Your task to perform on an android device: toggle priority inbox in the gmail app Image 0: 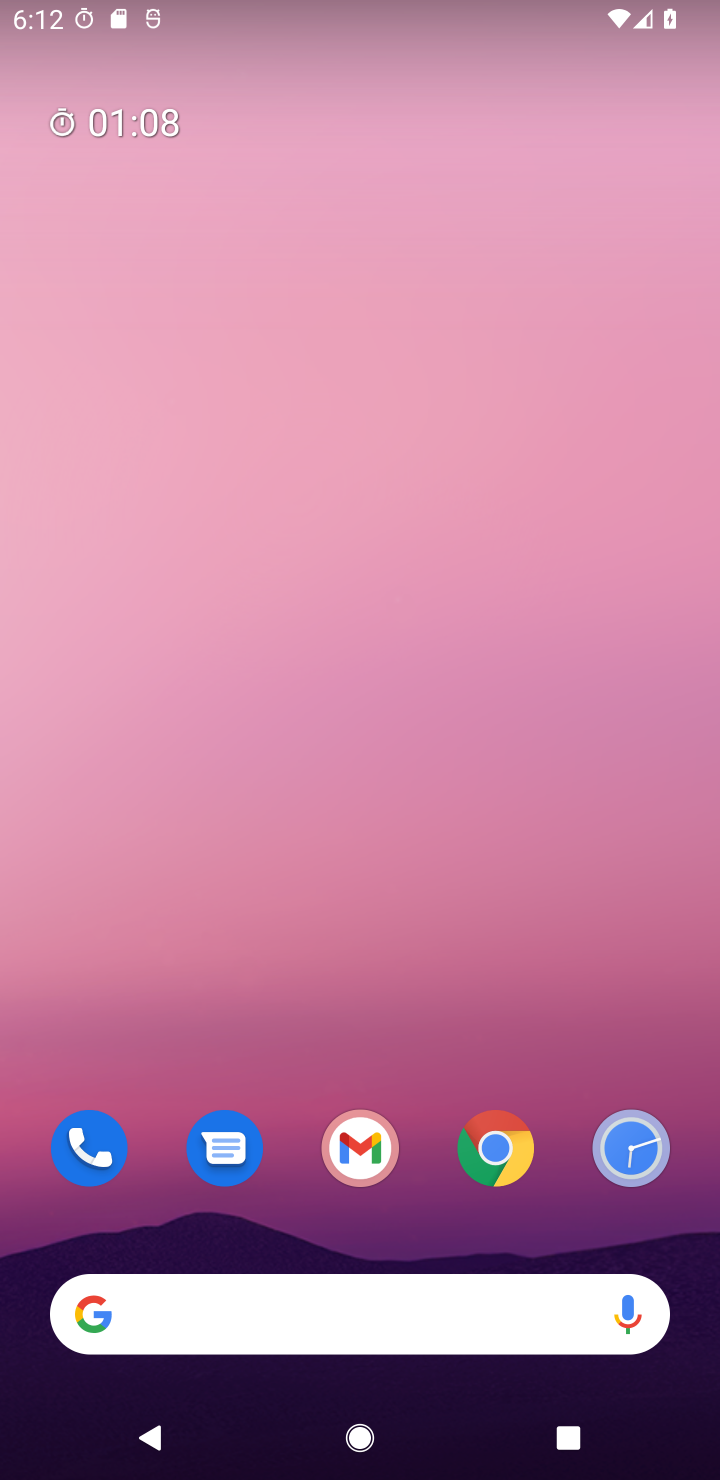
Step 0: drag from (311, 1248) to (321, 0)
Your task to perform on an android device: toggle priority inbox in the gmail app Image 1: 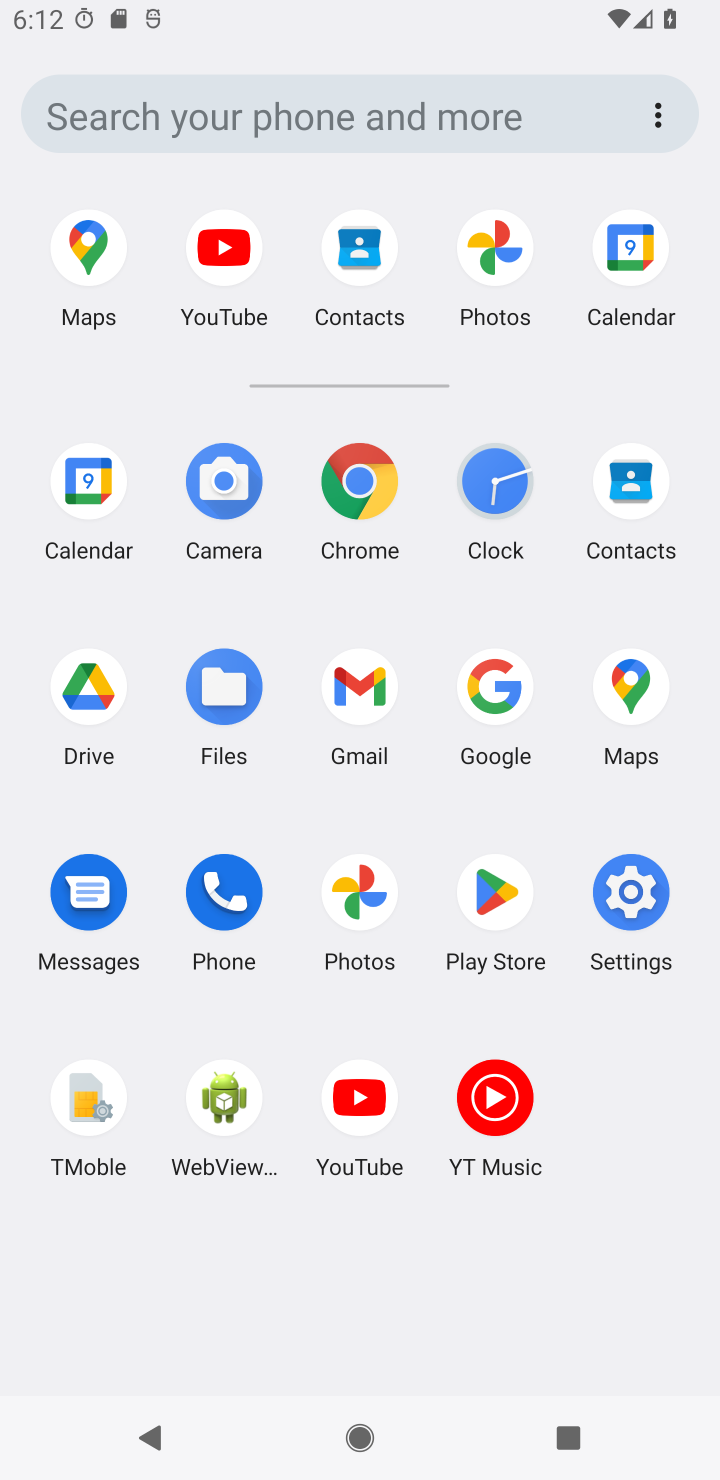
Step 1: click (351, 706)
Your task to perform on an android device: toggle priority inbox in the gmail app Image 2: 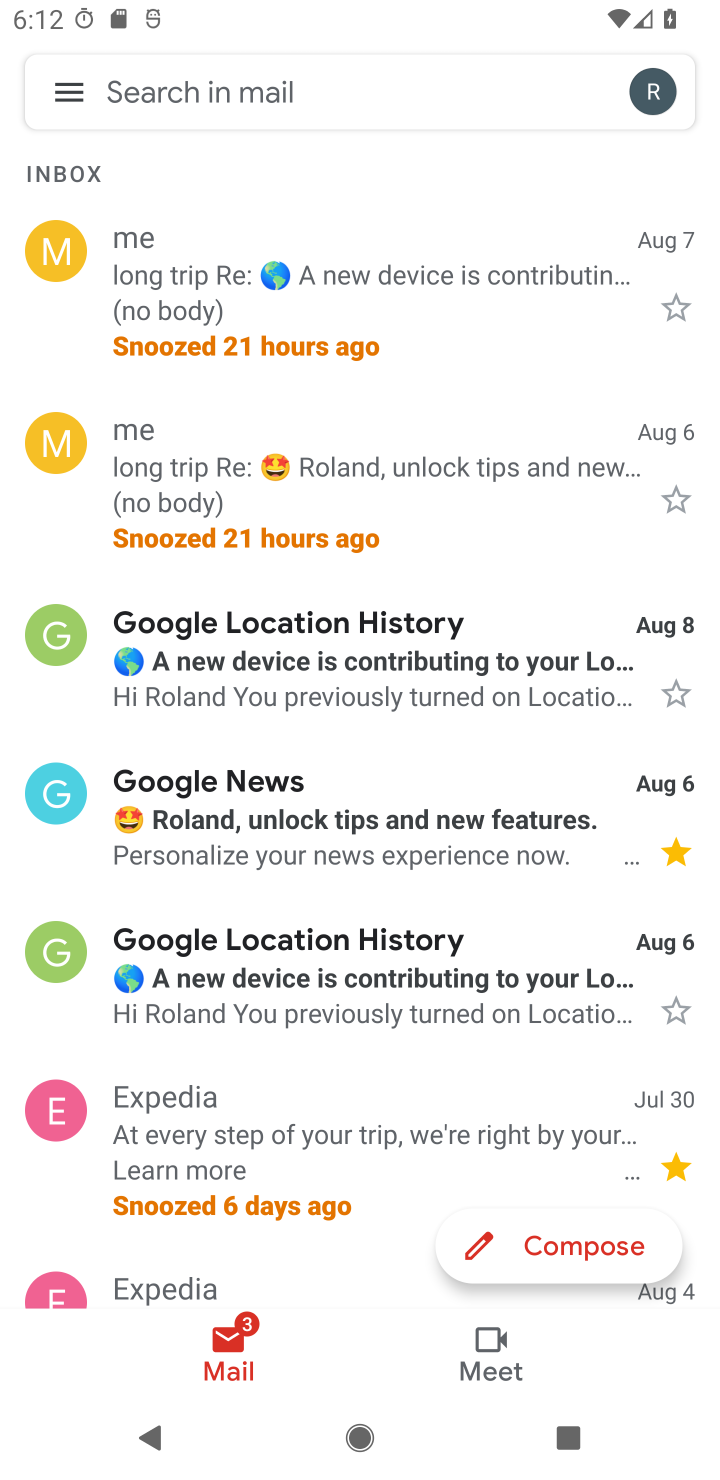
Step 2: click (73, 97)
Your task to perform on an android device: toggle priority inbox in the gmail app Image 3: 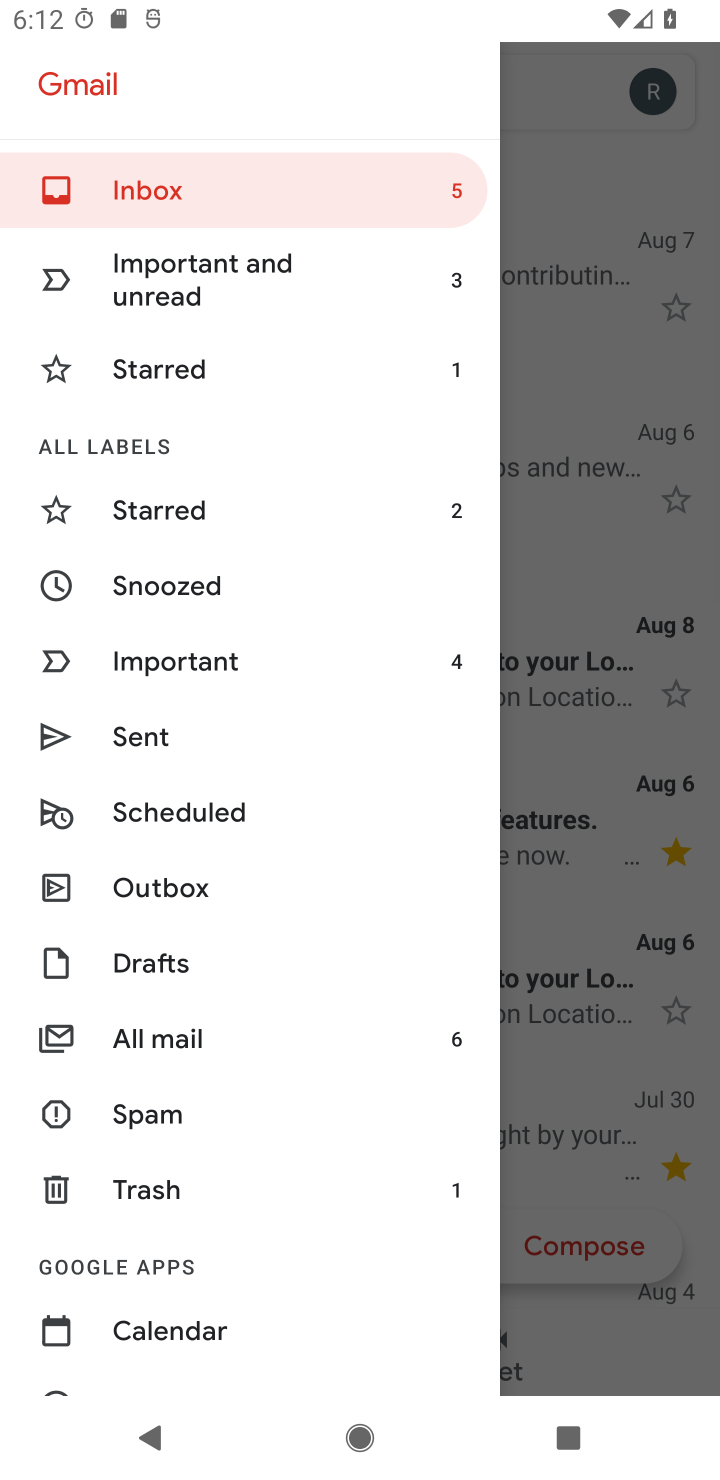
Step 3: drag from (162, 1087) to (377, 154)
Your task to perform on an android device: toggle priority inbox in the gmail app Image 4: 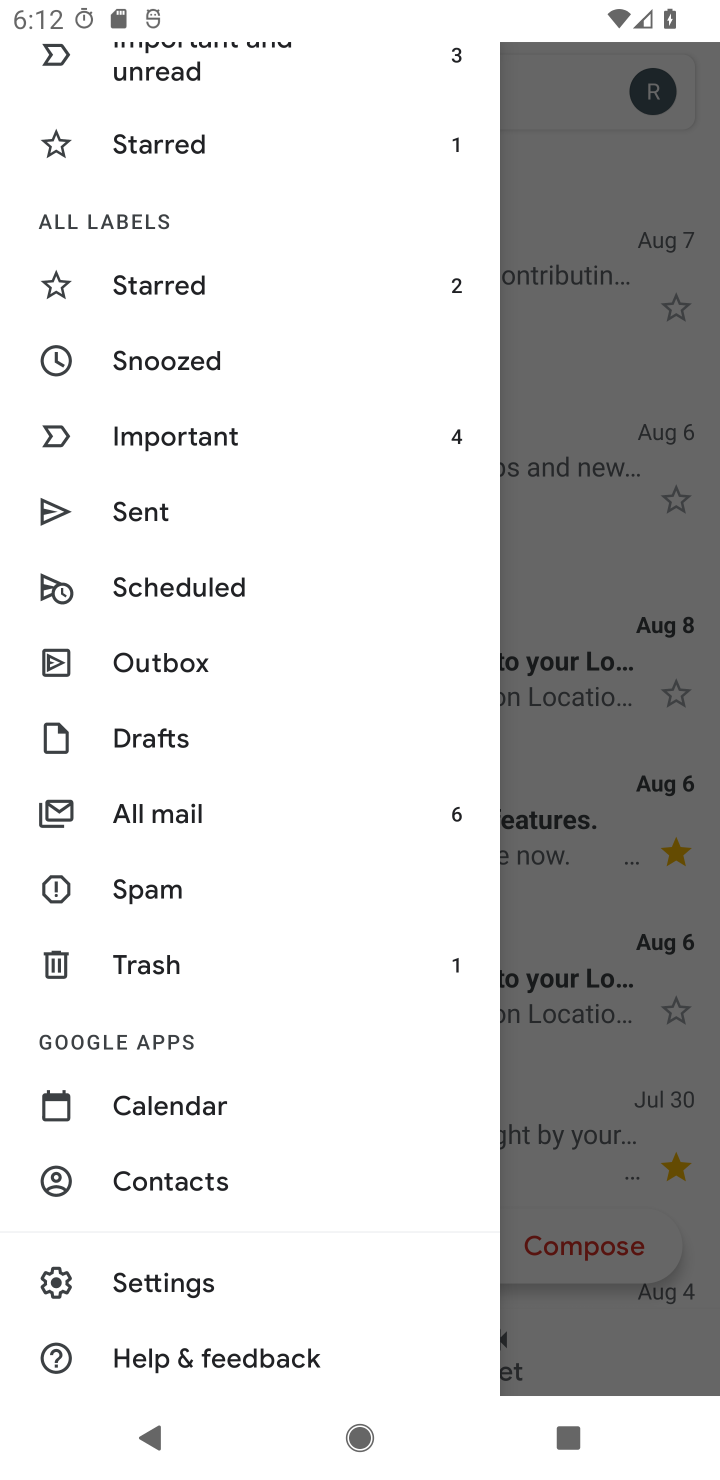
Step 4: click (185, 1282)
Your task to perform on an android device: toggle priority inbox in the gmail app Image 5: 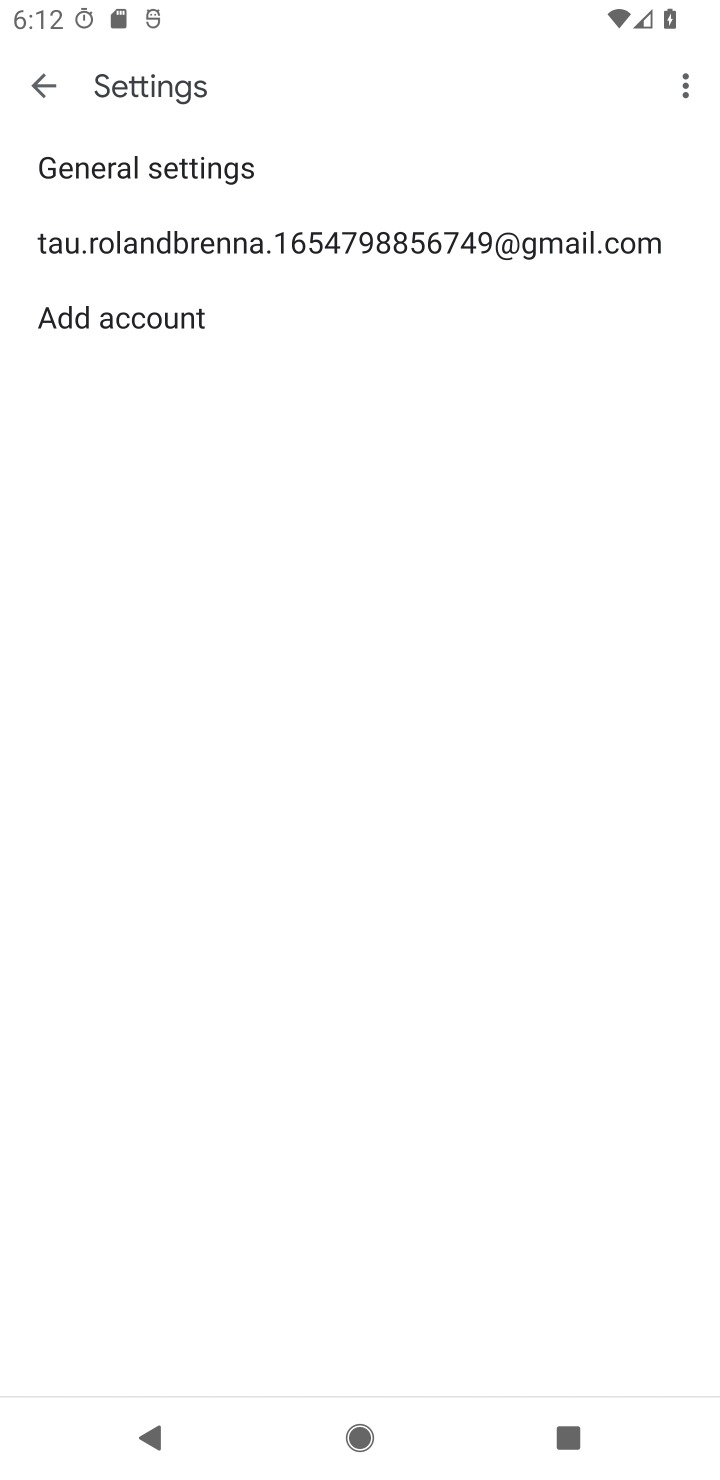
Step 5: click (291, 253)
Your task to perform on an android device: toggle priority inbox in the gmail app Image 6: 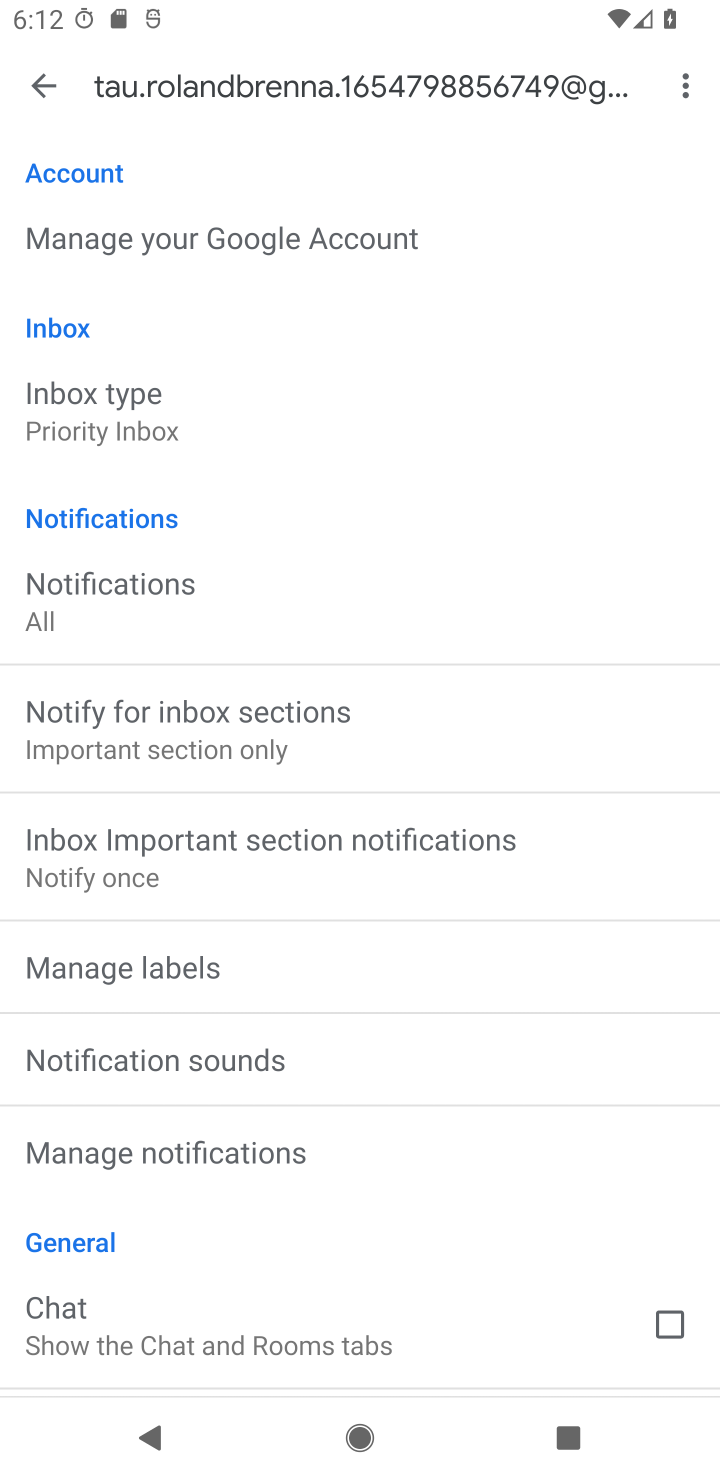
Step 6: click (143, 419)
Your task to perform on an android device: toggle priority inbox in the gmail app Image 7: 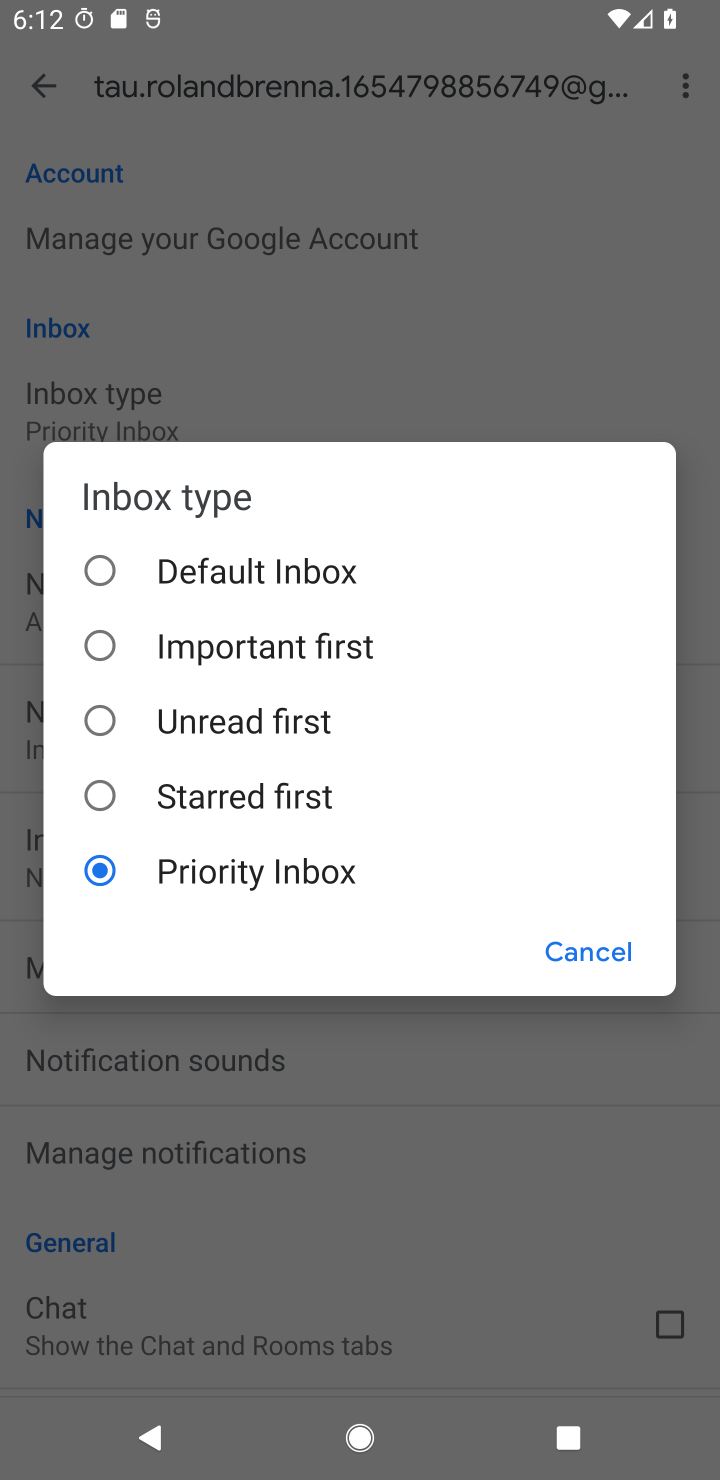
Step 7: click (216, 560)
Your task to perform on an android device: toggle priority inbox in the gmail app Image 8: 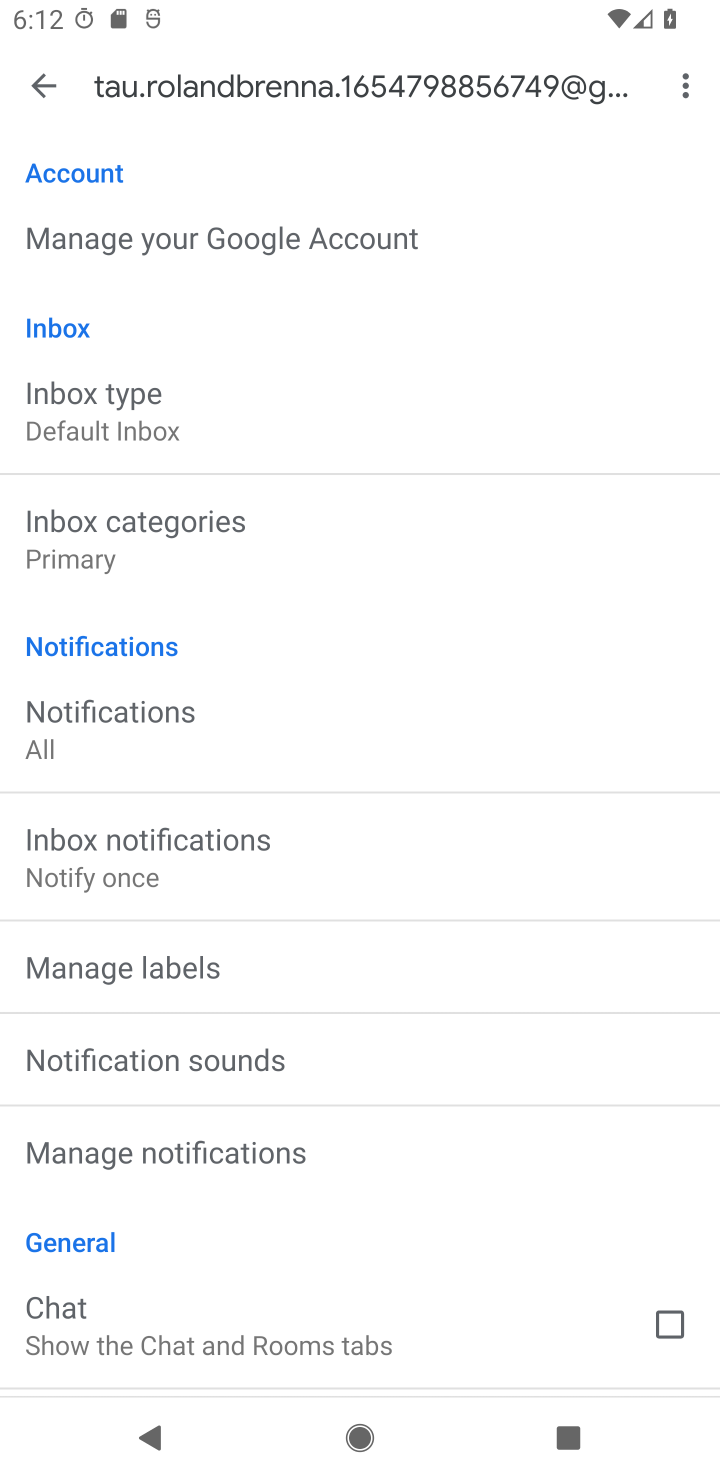
Step 8: task complete